Your task to perform on an android device: Go to display settings Image 0: 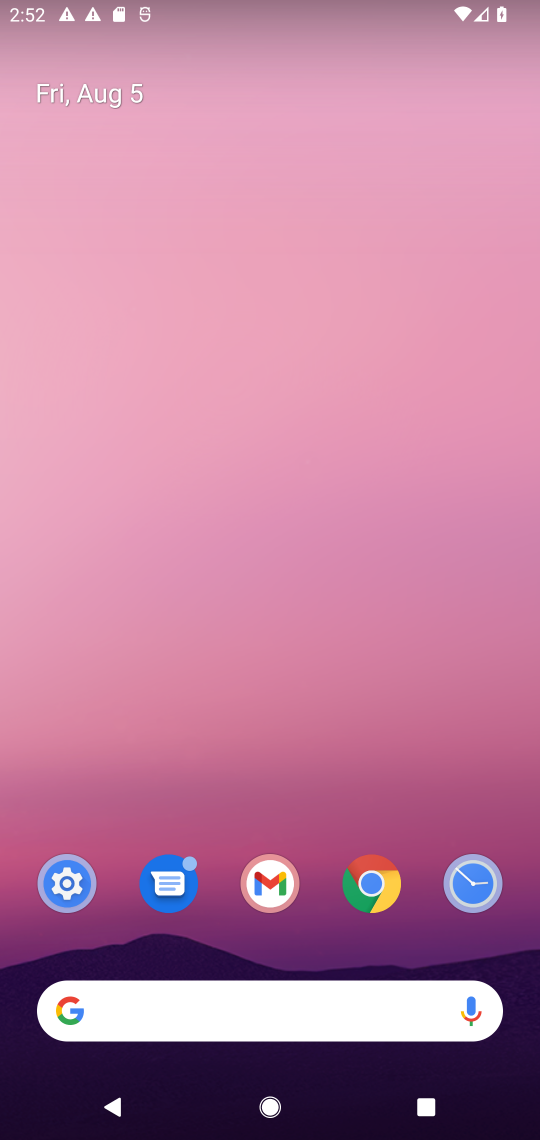
Step 0: press home button
Your task to perform on an android device: Go to display settings Image 1: 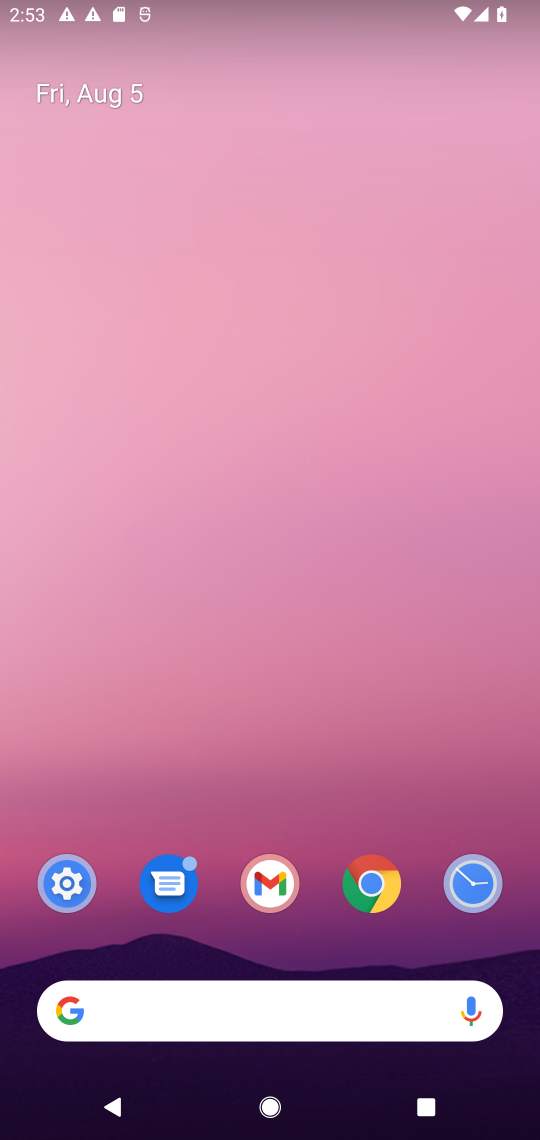
Step 1: drag from (317, 937) to (348, 70)
Your task to perform on an android device: Go to display settings Image 2: 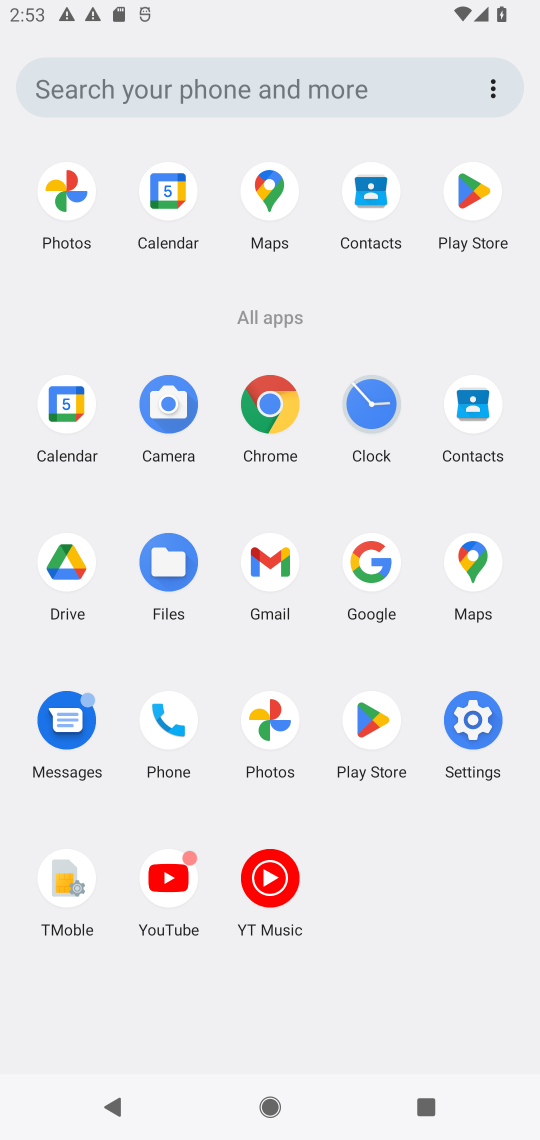
Step 2: click (470, 707)
Your task to perform on an android device: Go to display settings Image 3: 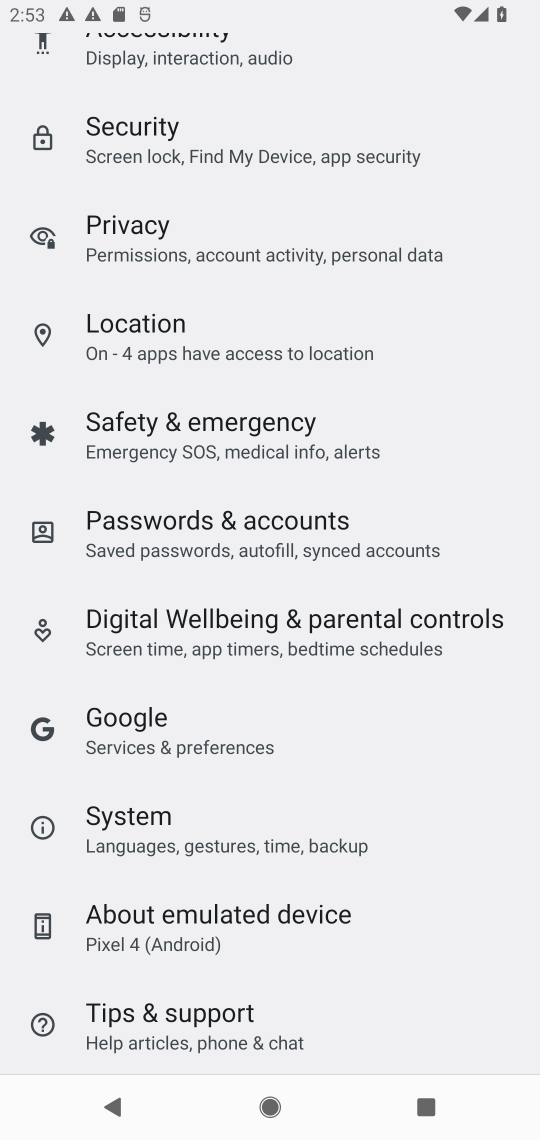
Step 3: drag from (198, 213) to (194, 1024)
Your task to perform on an android device: Go to display settings Image 4: 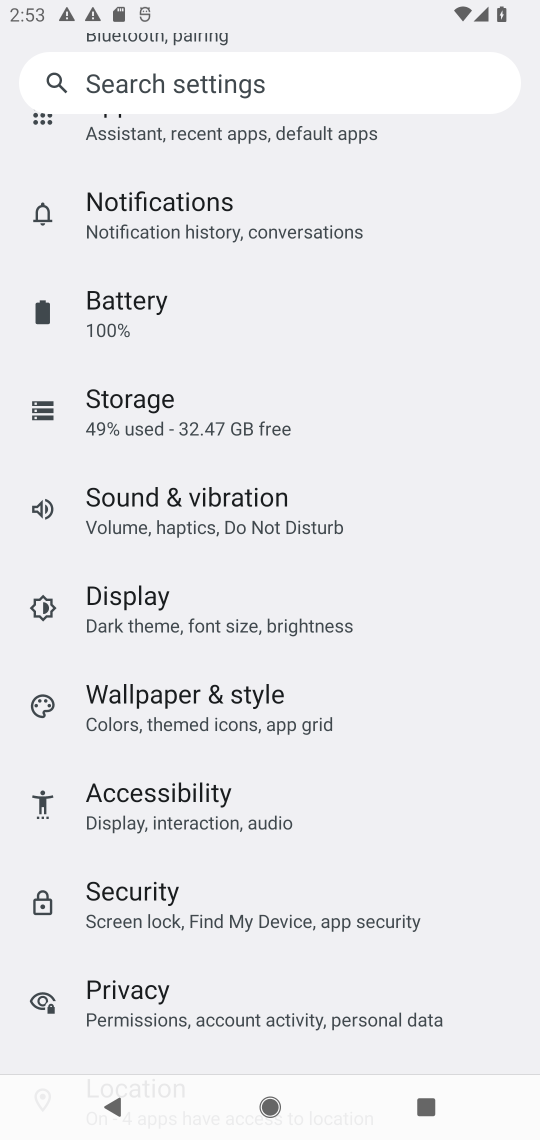
Step 4: click (183, 595)
Your task to perform on an android device: Go to display settings Image 5: 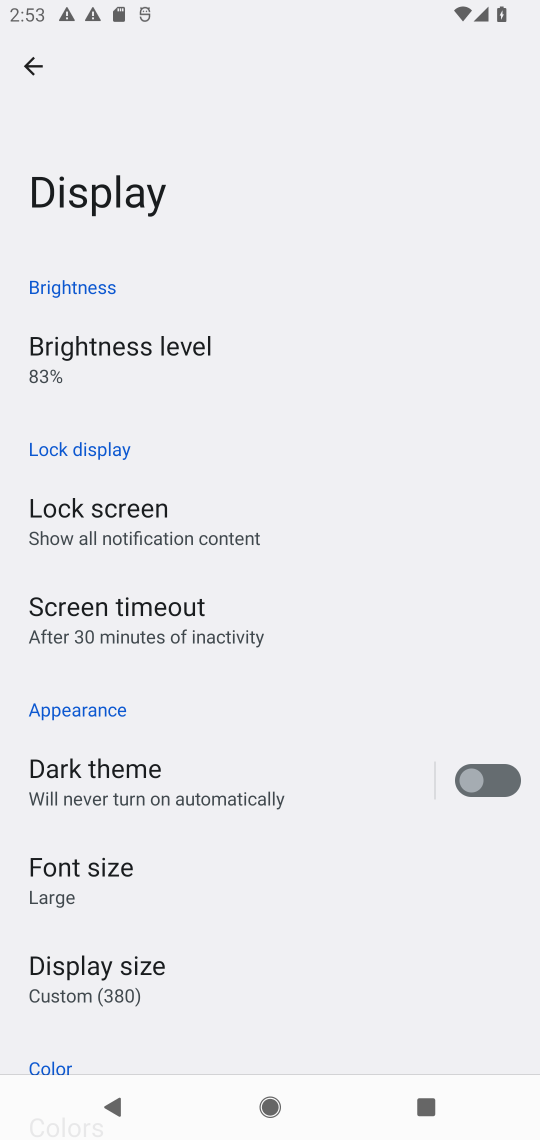
Step 5: task complete